Your task to perform on an android device: open sync settings in chrome Image 0: 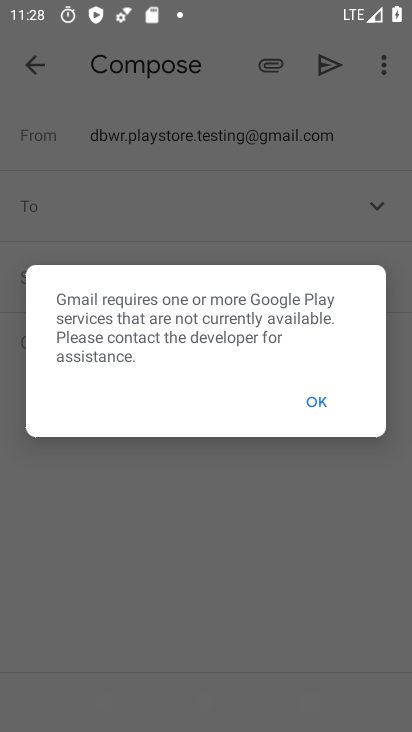
Step 0: press home button
Your task to perform on an android device: open sync settings in chrome Image 1: 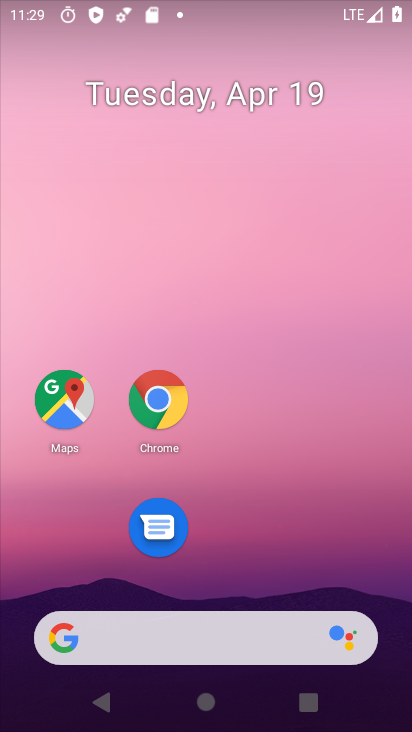
Step 1: drag from (241, 675) to (229, 39)
Your task to perform on an android device: open sync settings in chrome Image 2: 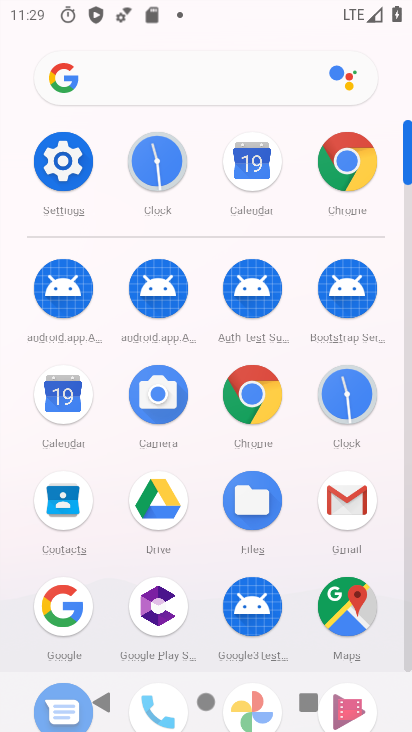
Step 2: click (348, 170)
Your task to perform on an android device: open sync settings in chrome Image 3: 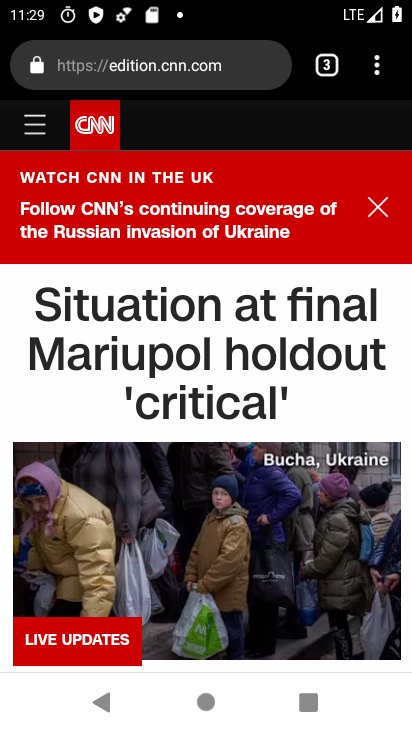
Step 3: click (369, 79)
Your task to perform on an android device: open sync settings in chrome Image 4: 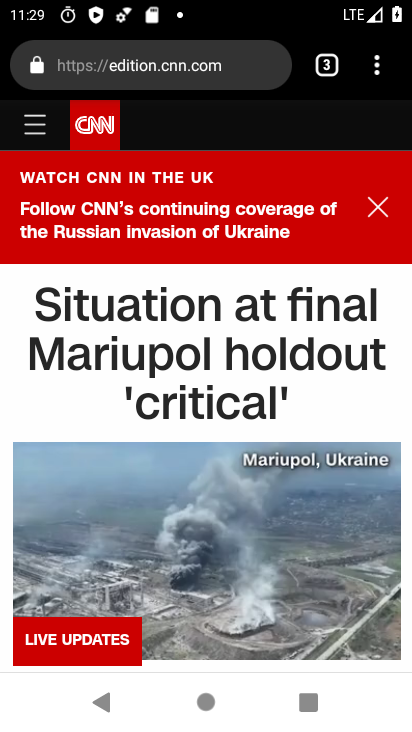
Step 4: click (377, 56)
Your task to perform on an android device: open sync settings in chrome Image 5: 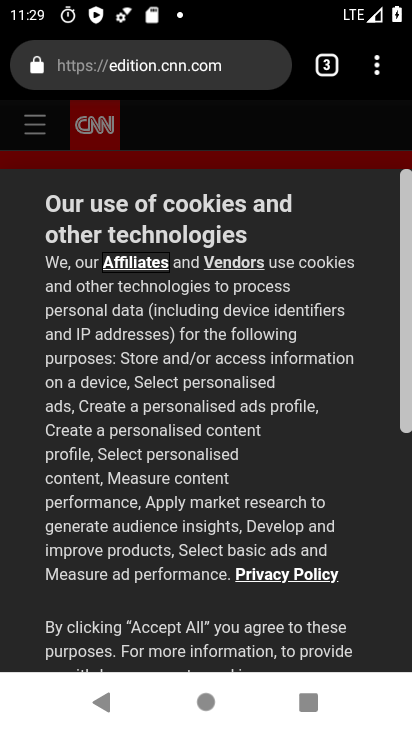
Step 5: click (372, 69)
Your task to perform on an android device: open sync settings in chrome Image 6: 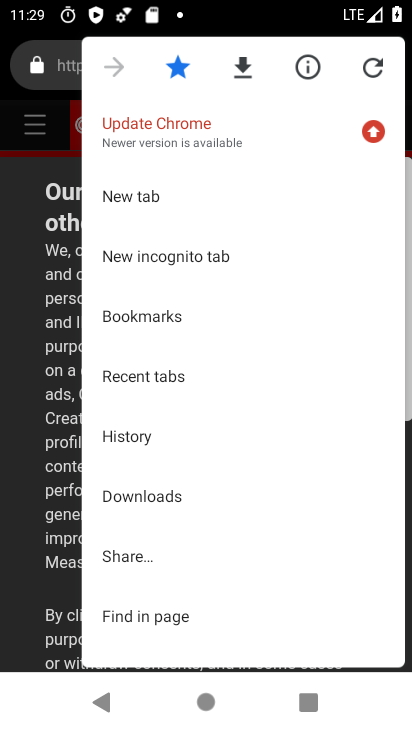
Step 6: drag from (174, 518) to (173, 239)
Your task to perform on an android device: open sync settings in chrome Image 7: 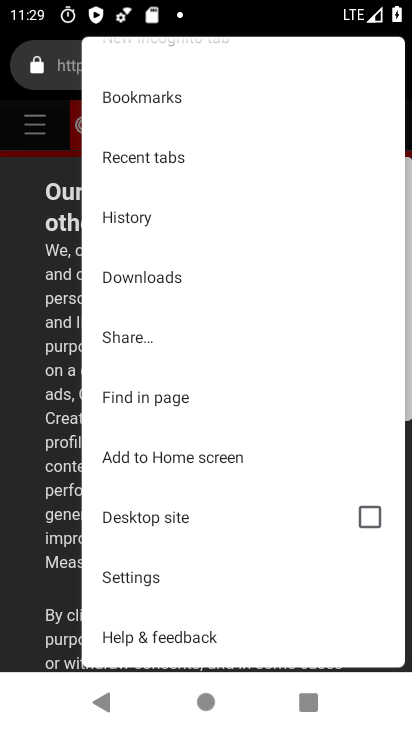
Step 7: click (139, 575)
Your task to perform on an android device: open sync settings in chrome Image 8: 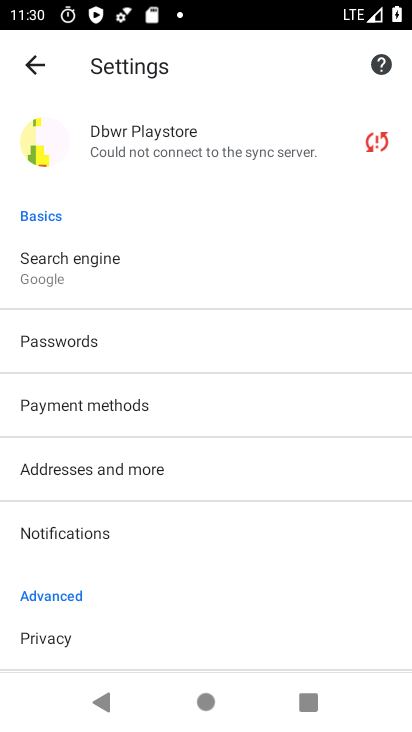
Step 8: drag from (162, 562) to (168, 349)
Your task to perform on an android device: open sync settings in chrome Image 9: 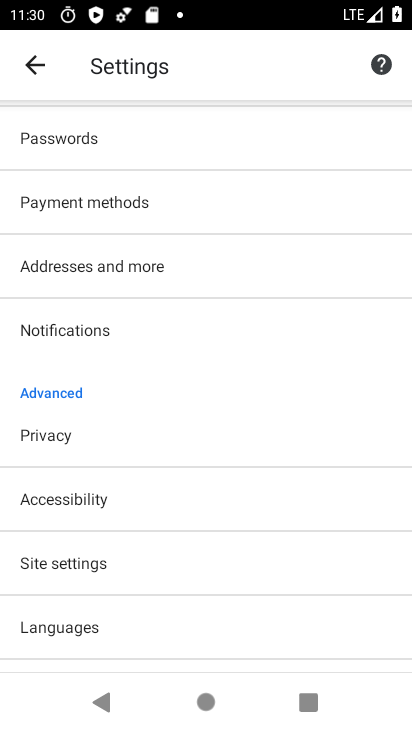
Step 9: click (69, 562)
Your task to perform on an android device: open sync settings in chrome Image 10: 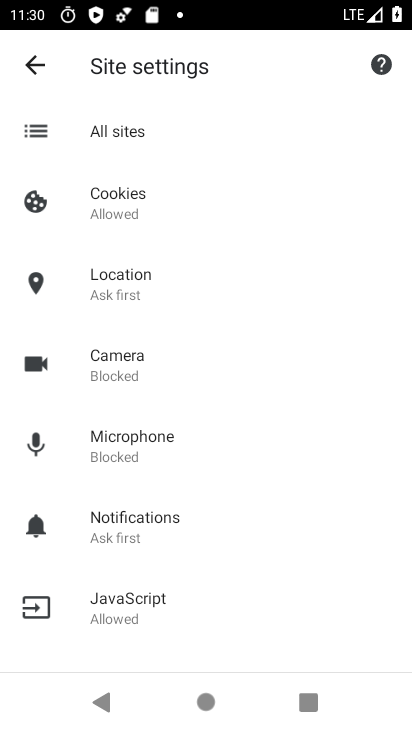
Step 10: drag from (177, 611) to (200, 232)
Your task to perform on an android device: open sync settings in chrome Image 11: 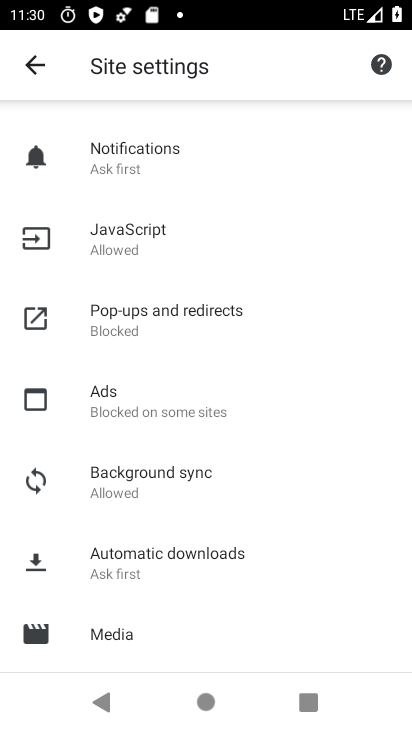
Step 11: click (135, 483)
Your task to perform on an android device: open sync settings in chrome Image 12: 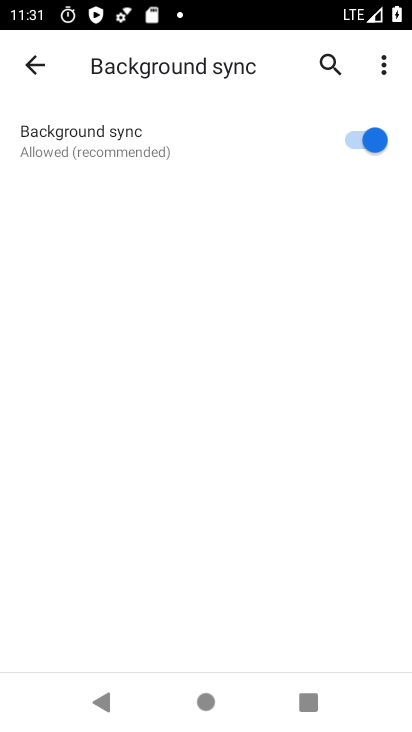
Step 12: click (220, 133)
Your task to perform on an android device: open sync settings in chrome Image 13: 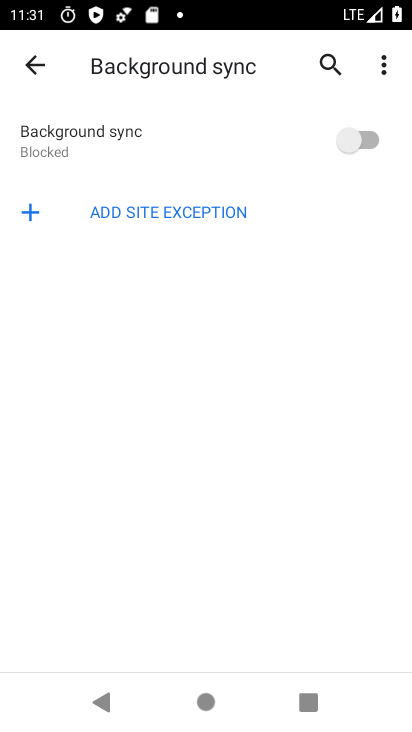
Step 13: click (220, 133)
Your task to perform on an android device: open sync settings in chrome Image 14: 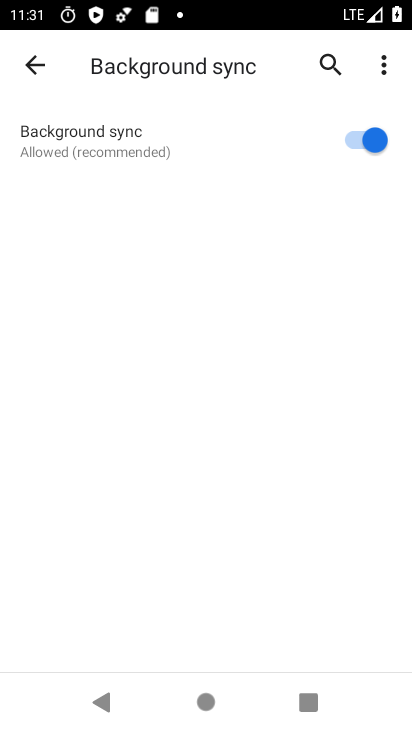
Step 14: task complete